Your task to perform on an android device: create a new album in the google photos Image 0: 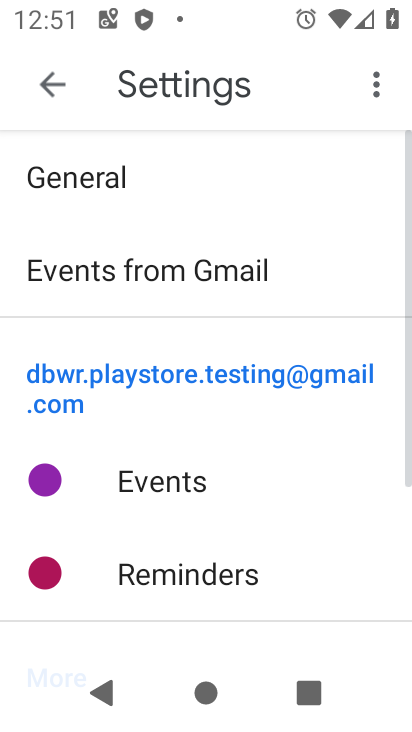
Step 0: press home button
Your task to perform on an android device: create a new album in the google photos Image 1: 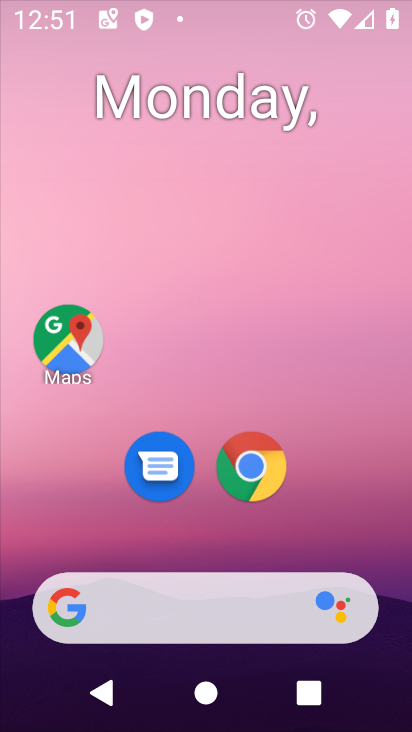
Step 1: drag from (391, 614) to (326, 94)
Your task to perform on an android device: create a new album in the google photos Image 2: 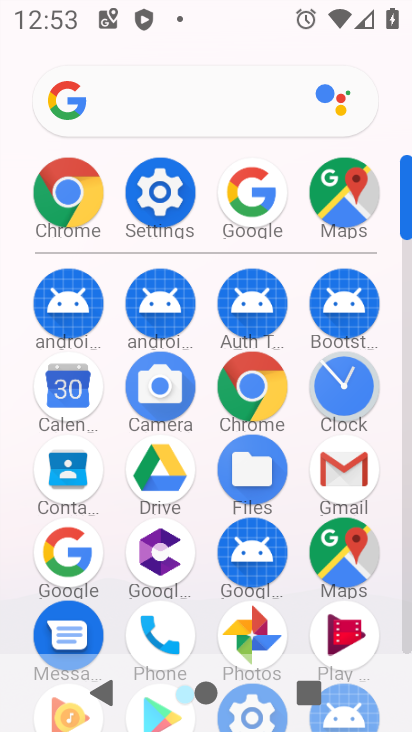
Step 2: click (260, 630)
Your task to perform on an android device: create a new album in the google photos Image 3: 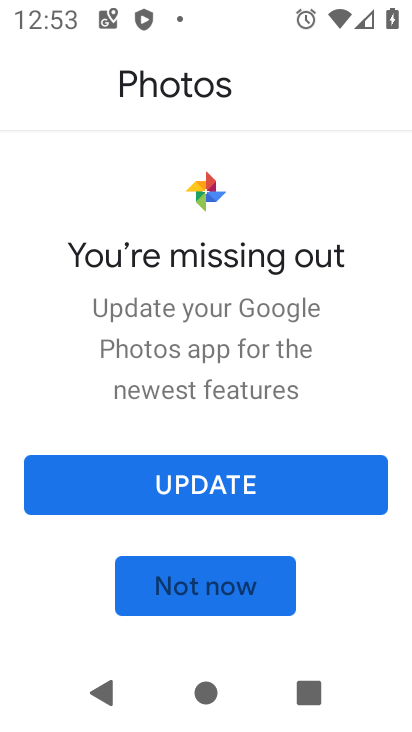
Step 3: click (265, 483)
Your task to perform on an android device: create a new album in the google photos Image 4: 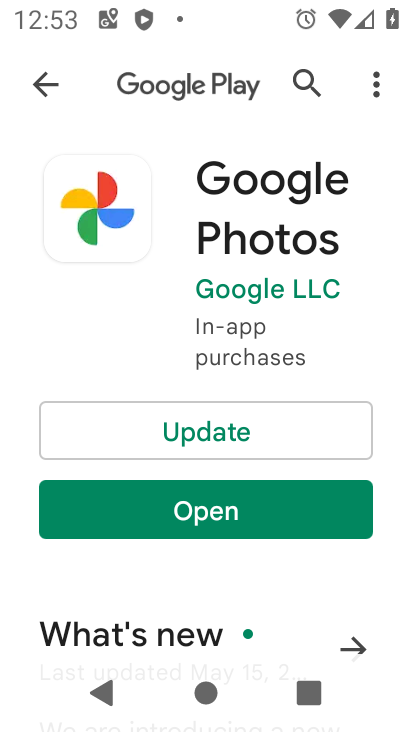
Step 4: click (228, 423)
Your task to perform on an android device: create a new album in the google photos Image 5: 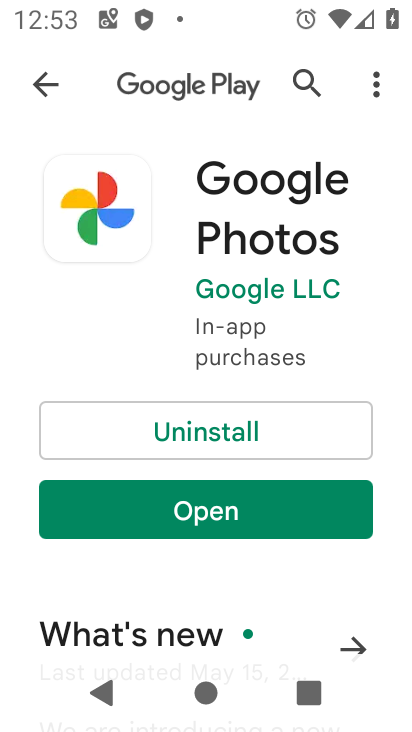
Step 5: click (181, 506)
Your task to perform on an android device: create a new album in the google photos Image 6: 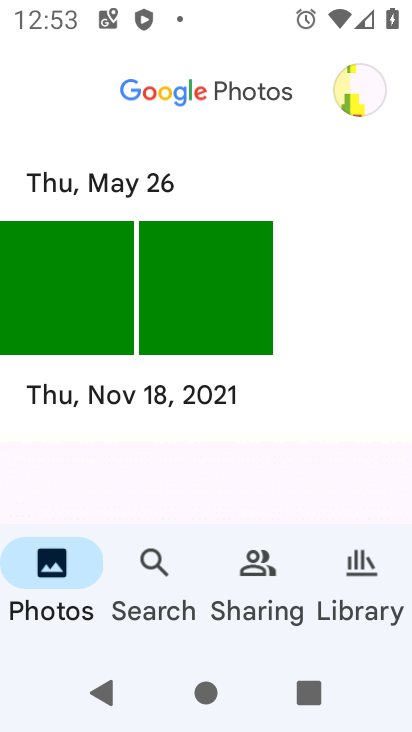
Step 6: click (86, 318)
Your task to perform on an android device: create a new album in the google photos Image 7: 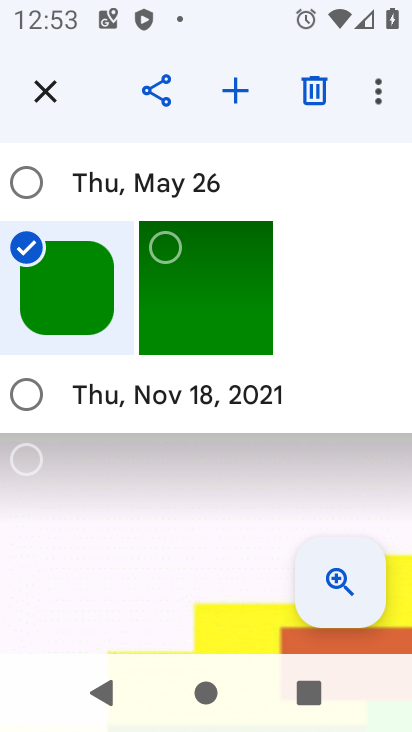
Step 7: click (210, 300)
Your task to perform on an android device: create a new album in the google photos Image 8: 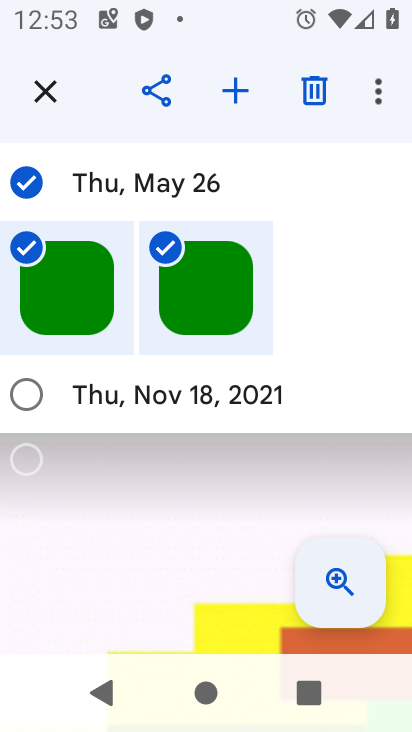
Step 8: click (237, 84)
Your task to perform on an android device: create a new album in the google photos Image 9: 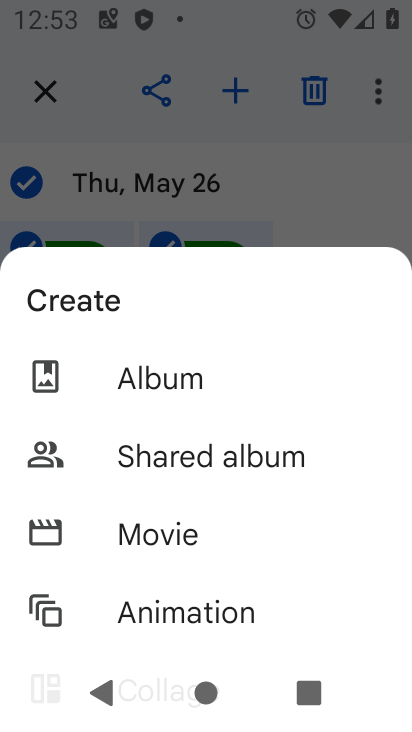
Step 9: click (159, 376)
Your task to perform on an android device: create a new album in the google photos Image 10: 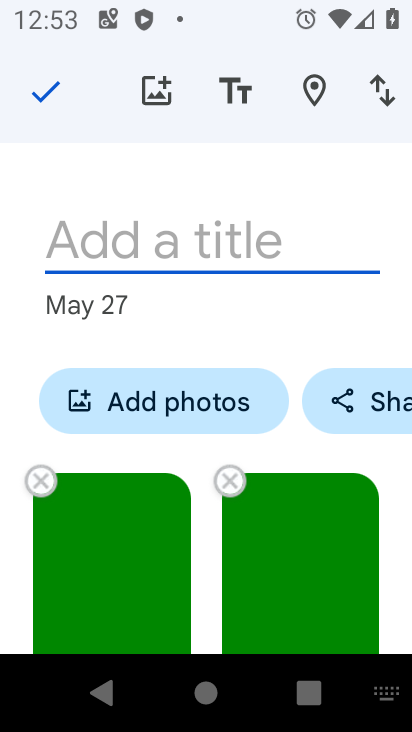
Step 10: type "Bsssss"
Your task to perform on an android device: create a new album in the google photos Image 11: 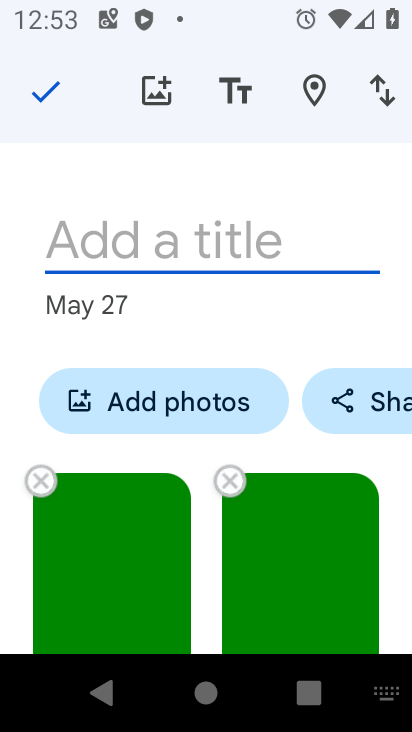
Step 11: click (35, 76)
Your task to perform on an android device: create a new album in the google photos Image 12: 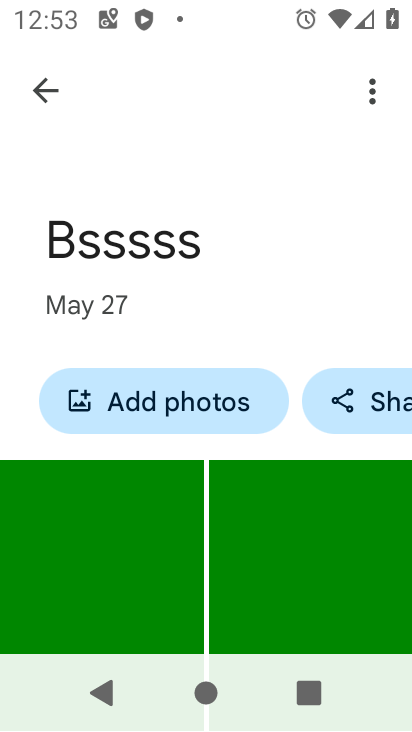
Step 12: task complete